Your task to perform on an android device: toggle pop-ups in chrome Image 0: 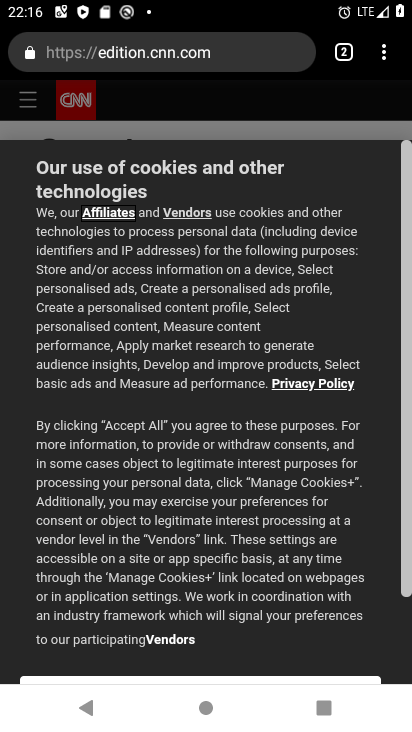
Step 0: click (376, 56)
Your task to perform on an android device: toggle pop-ups in chrome Image 1: 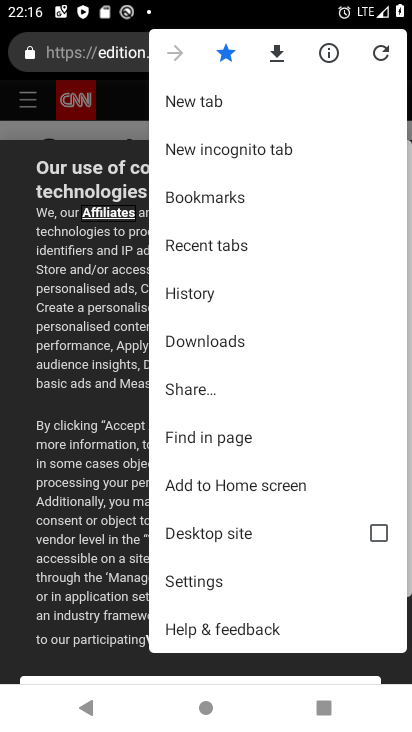
Step 1: click (233, 581)
Your task to perform on an android device: toggle pop-ups in chrome Image 2: 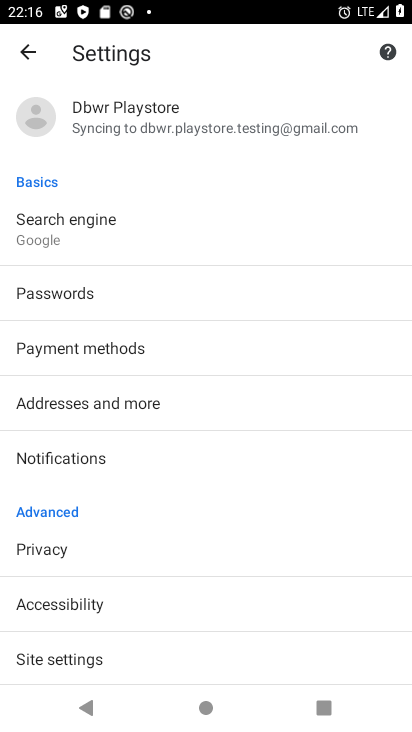
Step 2: drag from (194, 619) to (247, 167)
Your task to perform on an android device: toggle pop-ups in chrome Image 3: 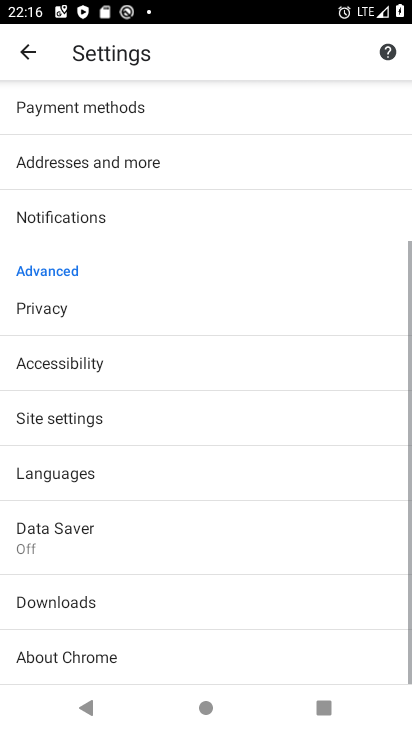
Step 3: click (111, 418)
Your task to perform on an android device: toggle pop-ups in chrome Image 4: 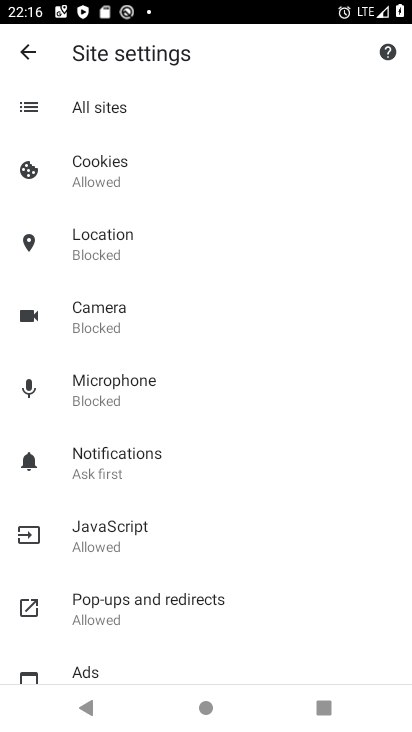
Step 4: click (183, 606)
Your task to perform on an android device: toggle pop-ups in chrome Image 5: 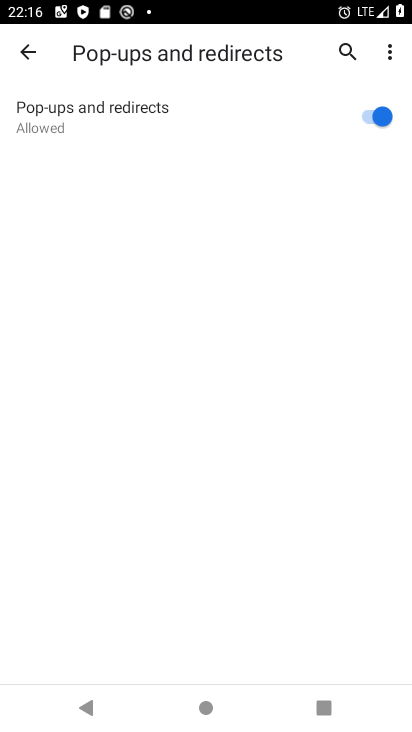
Step 5: click (383, 121)
Your task to perform on an android device: toggle pop-ups in chrome Image 6: 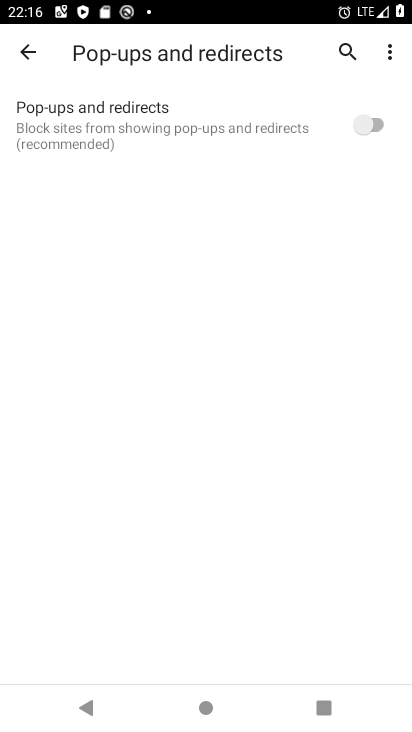
Step 6: task complete